Your task to perform on an android device: delete the emails in spam in the gmail app Image 0: 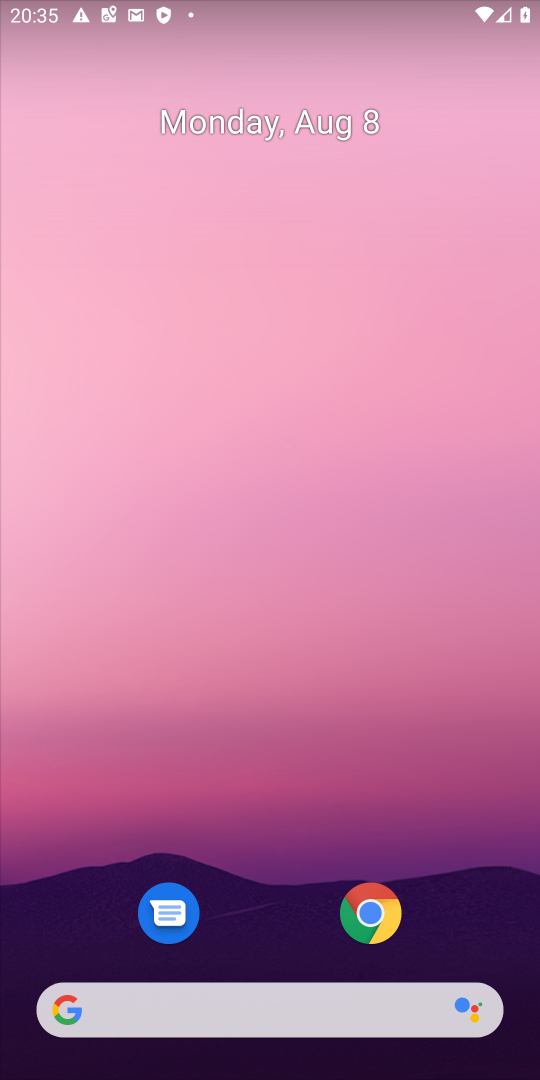
Step 0: press home button
Your task to perform on an android device: delete the emails in spam in the gmail app Image 1: 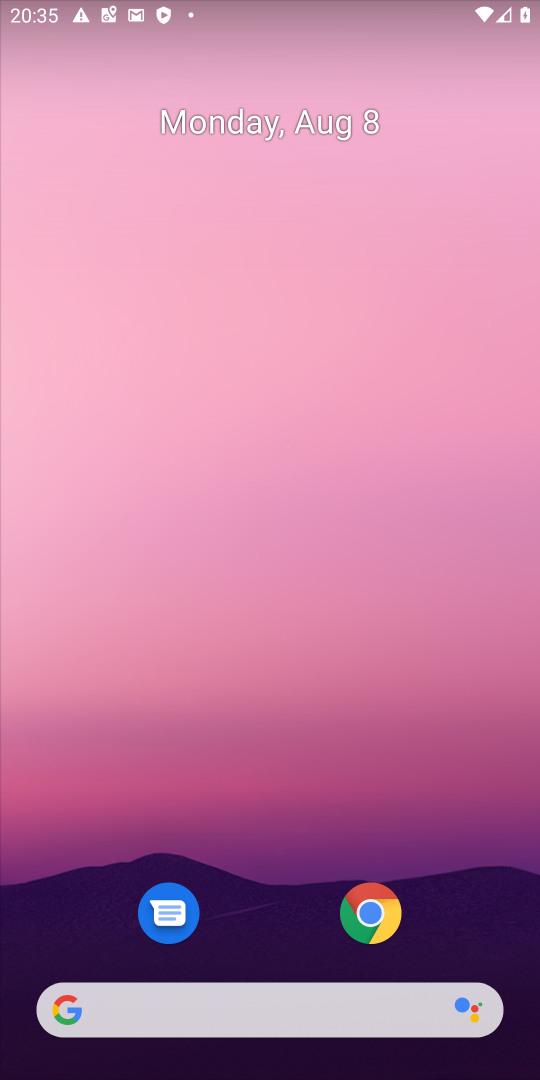
Step 1: drag from (299, 903) to (282, 576)
Your task to perform on an android device: delete the emails in spam in the gmail app Image 2: 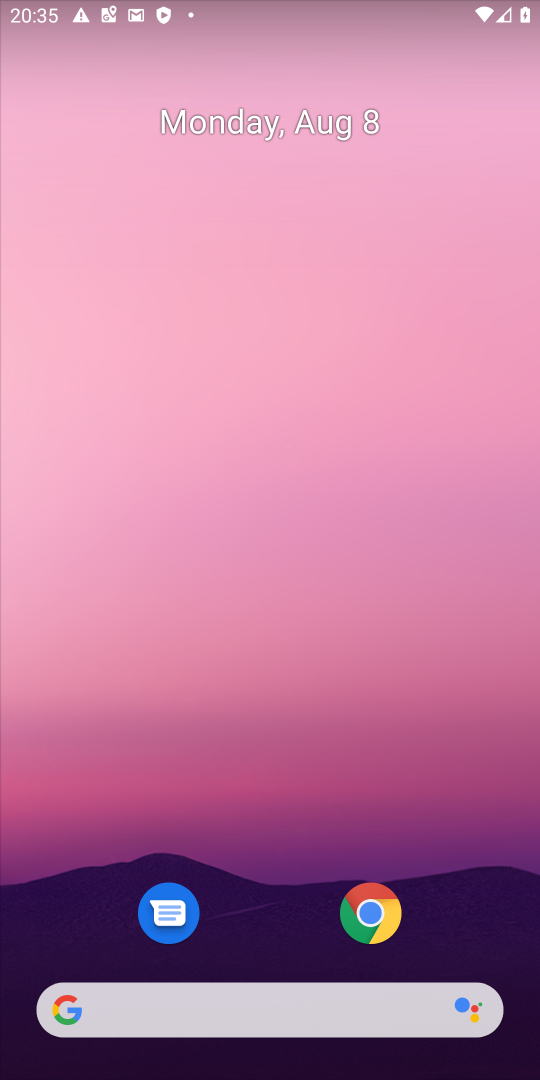
Step 2: click (201, 99)
Your task to perform on an android device: delete the emails in spam in the gmail app Image 3: 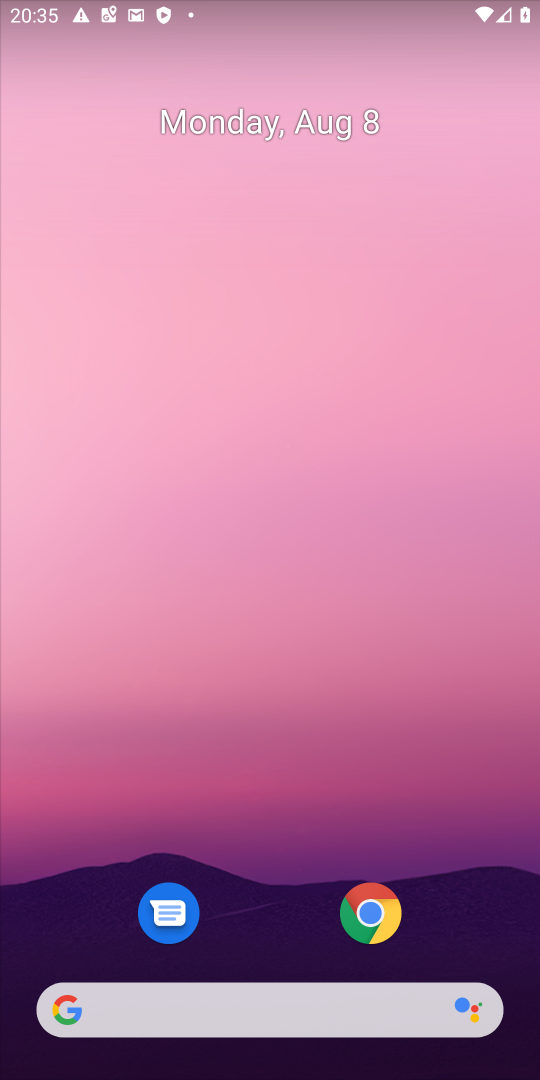
Step 3: drag from (247, 906) to (270, 424)
Your task to perform on an android device: delete the emails in spam in the gmail app Image 4: 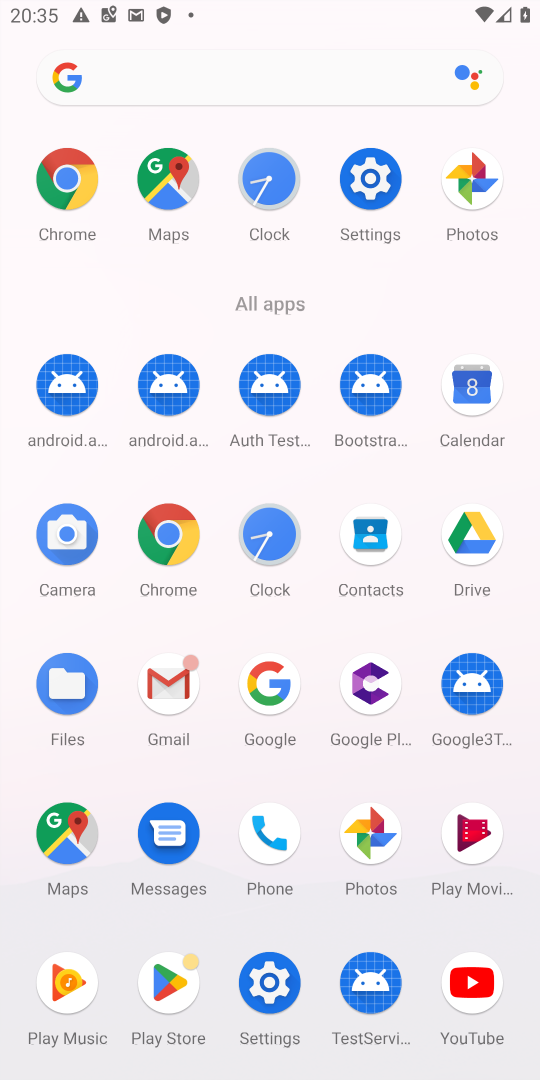
Step 4: click (164, 718)
Your task to perform on an android device: delete the emails in spam in the gmail app Image 5: 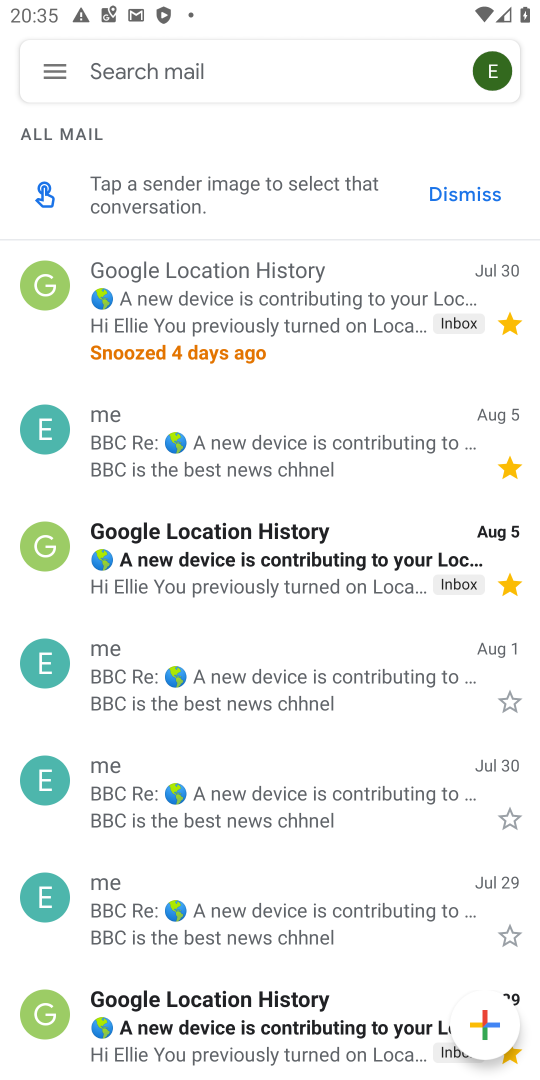
Step 5: click (55, 72)
Your task to perform on an android device: delete the emails in spam in the gmail app Image 6: 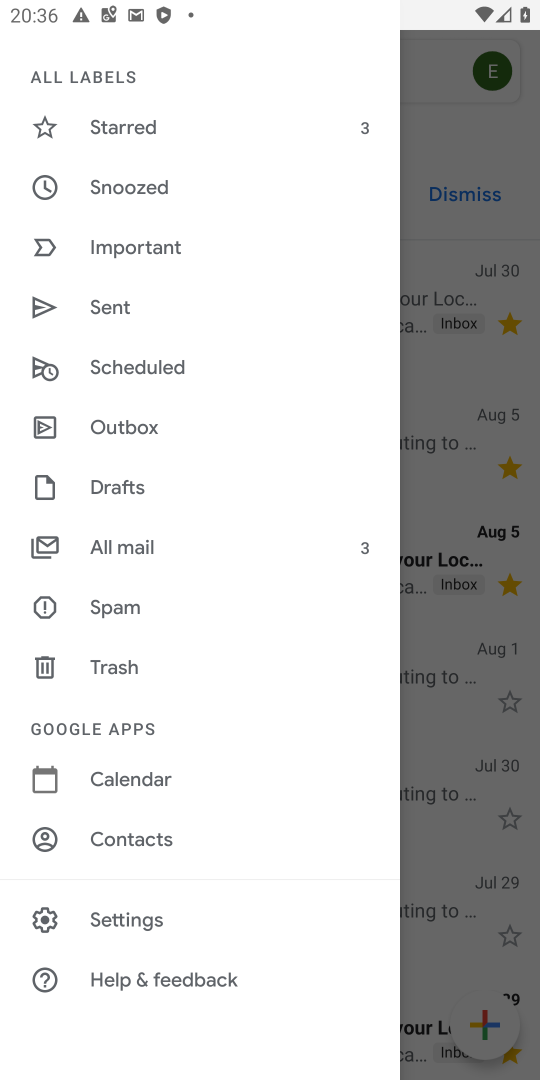
Step 6: click (486, 580)
Your task to perform on an android device: delete the emails in spam in the gmail app Image 7: 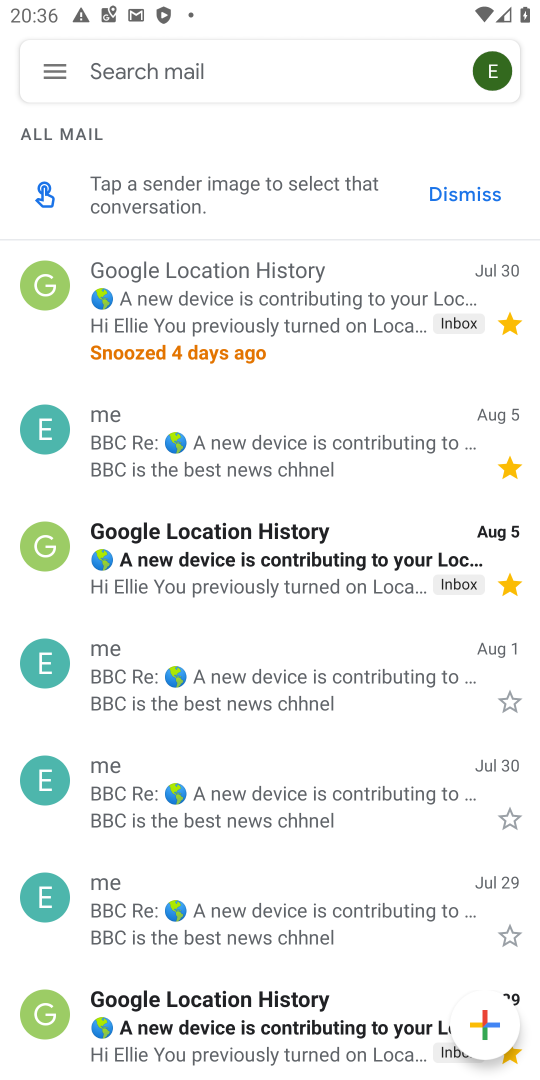
Step 7: click (321, 569)
Your task to perform on an android device: delete the emails in spam in the gmail app Image 8: 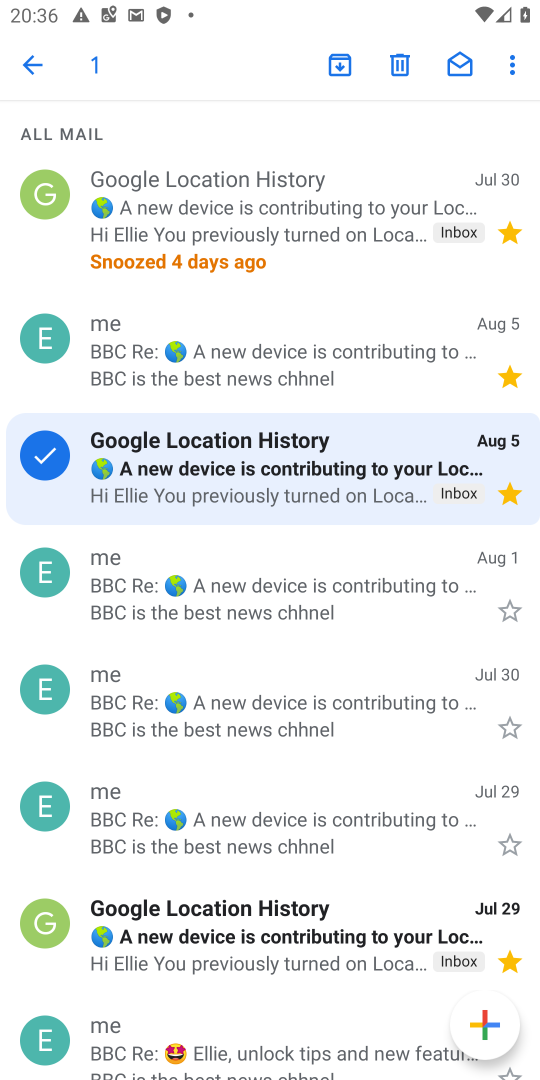
Step 8: click (386, 66)
Your task to perform on an android device: delete the emails in spam in the gmail app Image 9: 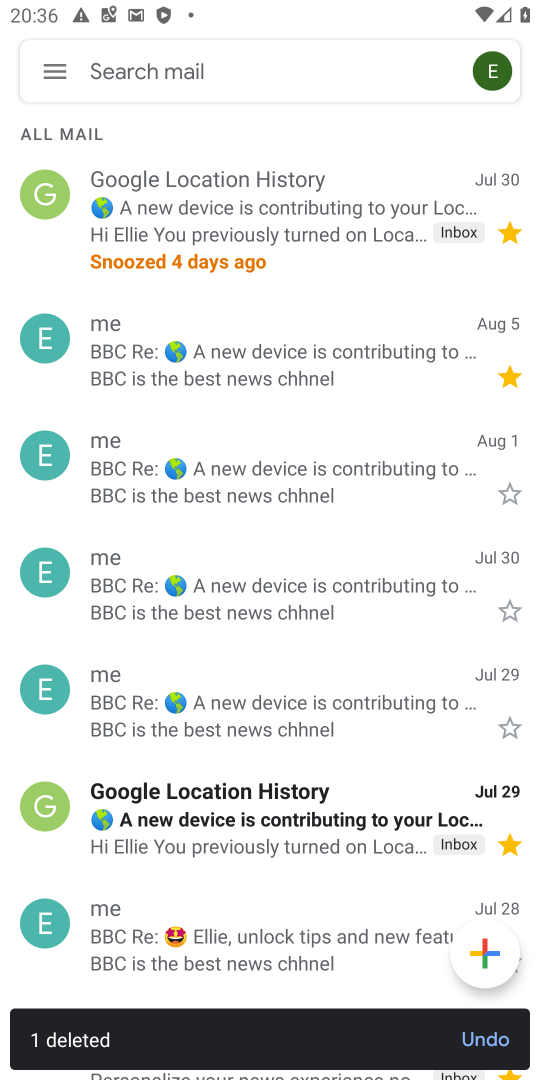
Step 9: task complete